Your task to perform on an android device: turn on sleep mode Image 0: 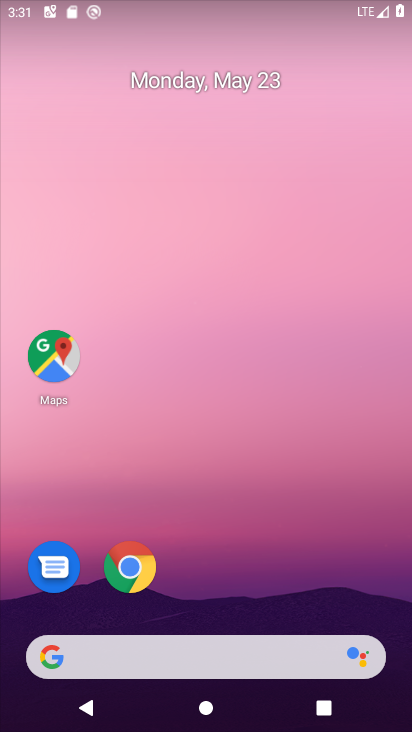
Step 0: drag from (67, 463) to (0, 507)
Your task to perform on an android device: turn on sleep mode Image 1: 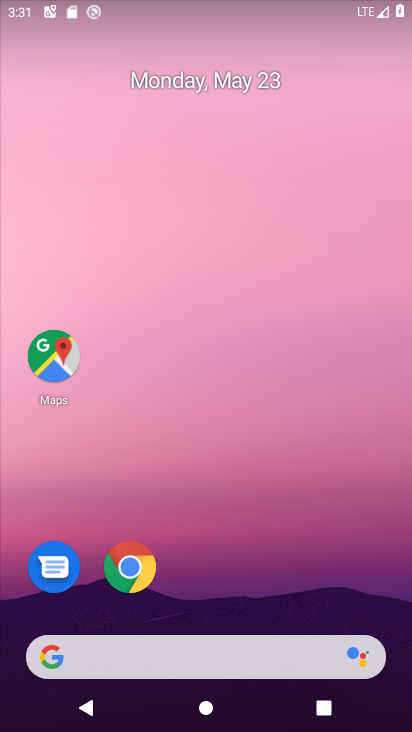
Step 1: drag from (45, 546) to (207, 89)
Your task to perform on an android device: turn on sleep mode Image 2: 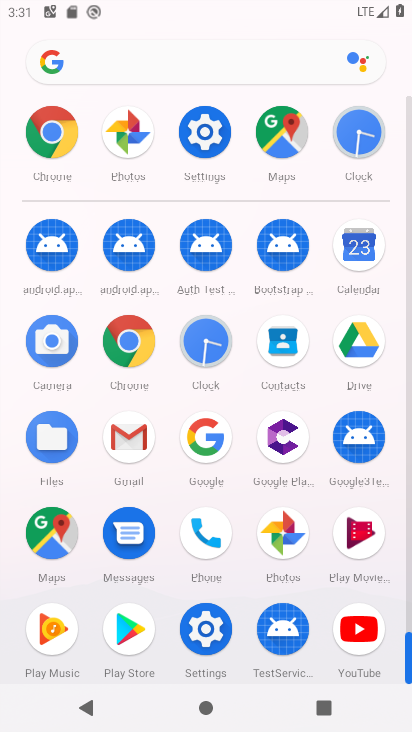
Step 2: click (206, 114)
Your task to perform on an android device: turn on sleep mode Image 3: 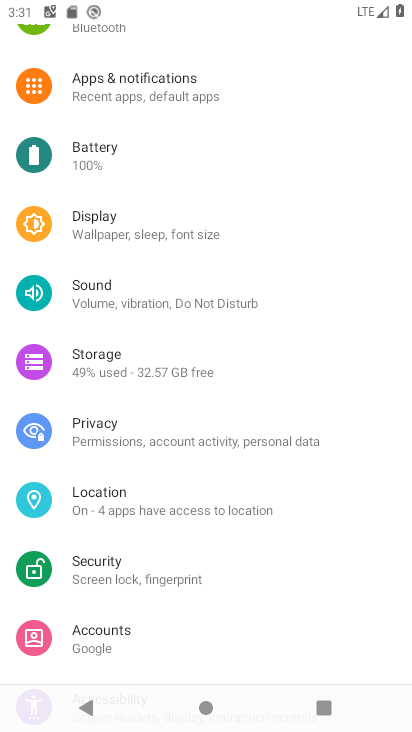
Step 3: drag from (220, 164) to (205, 525)
Your task to perform on an android device: turn on sleep mode Image 4: 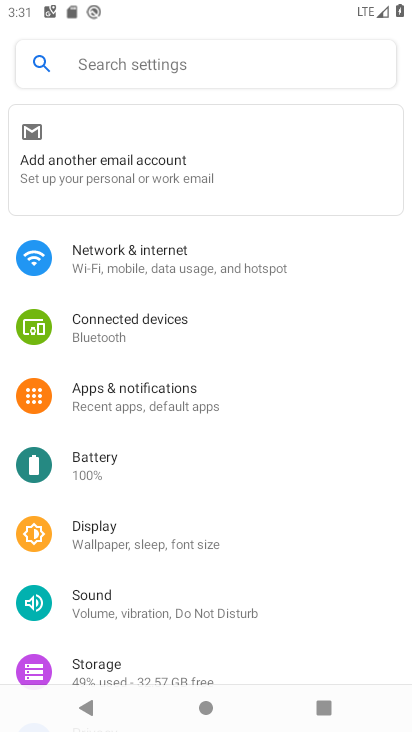
Step 4: drag from (69, 619) to (260, 228)
Your task to perform on an android device: turn on sleep mode Image 5: 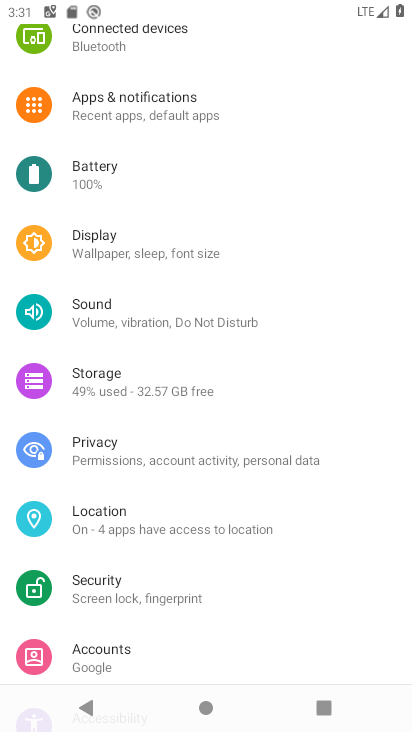
Step 5: click (179, 246)
Your task to perform on an android device: turn on sleep mode Image 6: 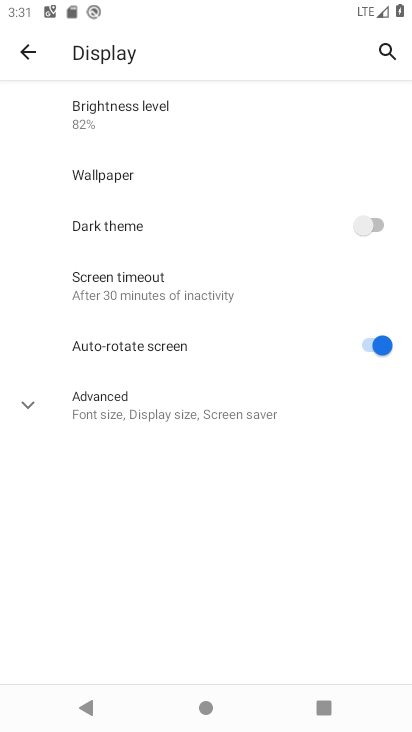
Step 6: task complete